Your task to perform on an android device: change the clock style Image 0: 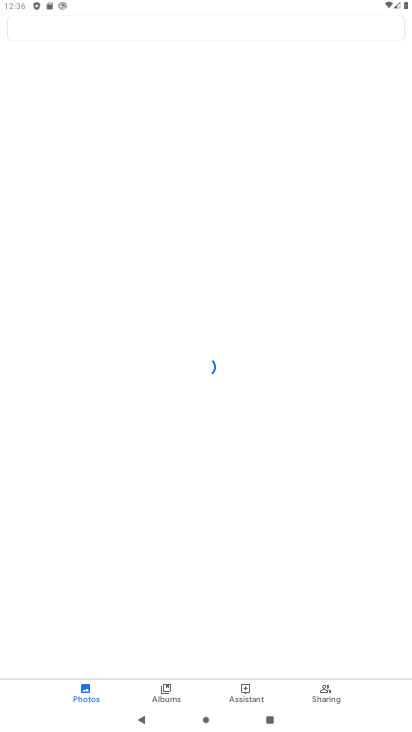
Step 0: press home button
Your task to perform on an android device: change the clock style Image 1: 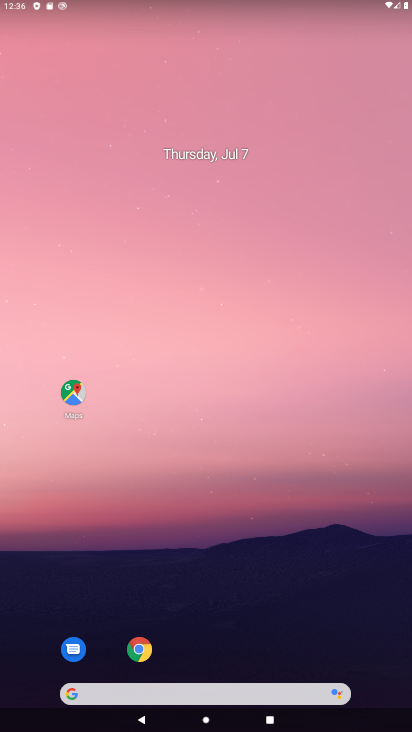
Step 1: drag from (198, 666) to (339, 17)
Your task to perform on an android device: change the clock style Image 2: 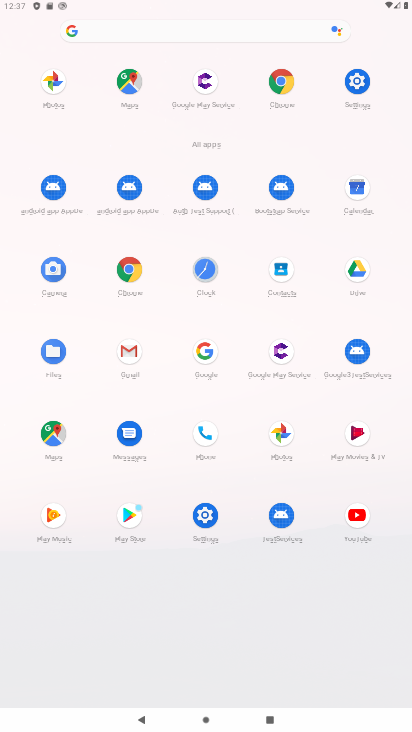
Step 2: click (206, 281)
Your task to perform on an android device: change the clock style Image 3: 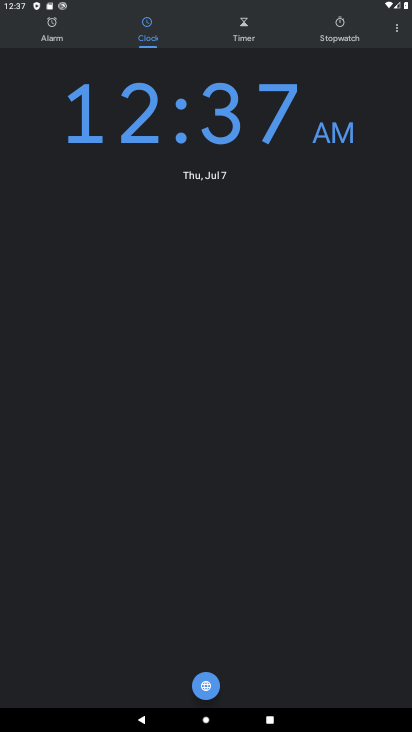
Step 3: click (397, 27)
Your task to perform on an android device: change the clock style Image 4: 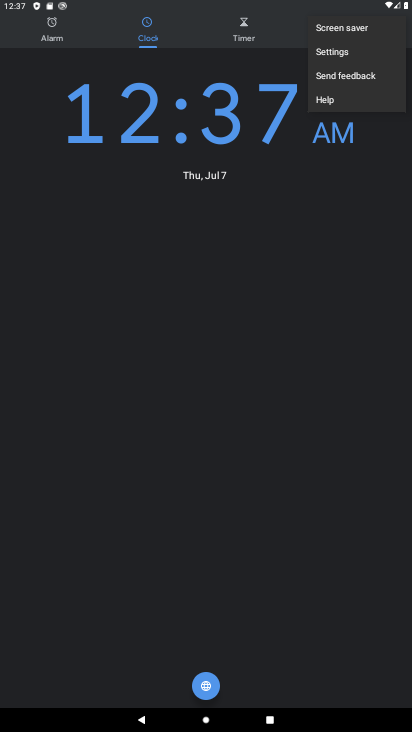
Step 4: click (317, 52)
Your task to perform on an android device: change the clock style Image 5: 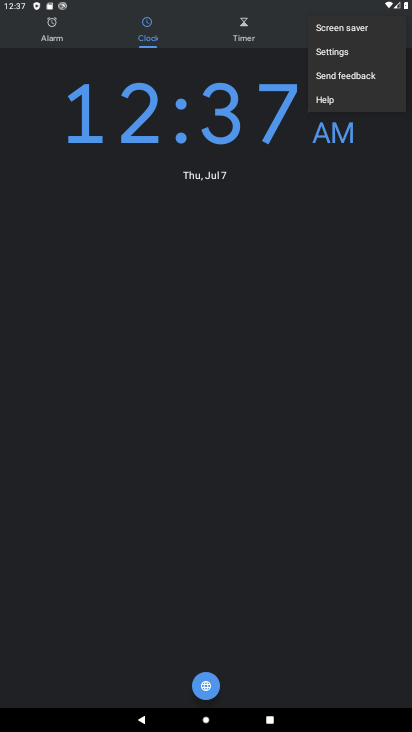
Step 5: click (317, 52)
Your task to perform on an android device: change the clock style Image 6: 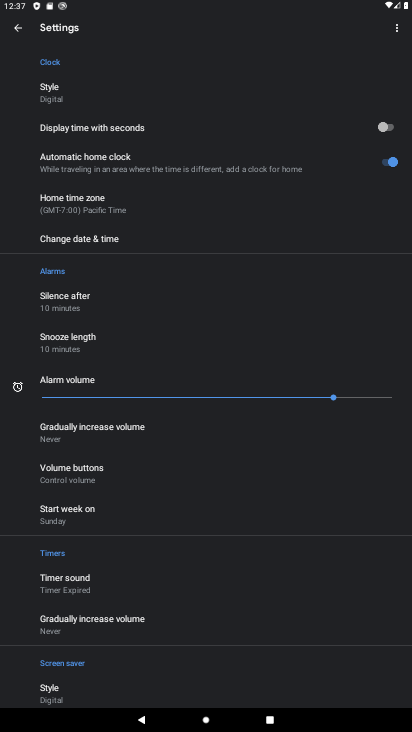
Step 6: click (65, 92)
Your task to perform on an android device: change the clock style Image 7: 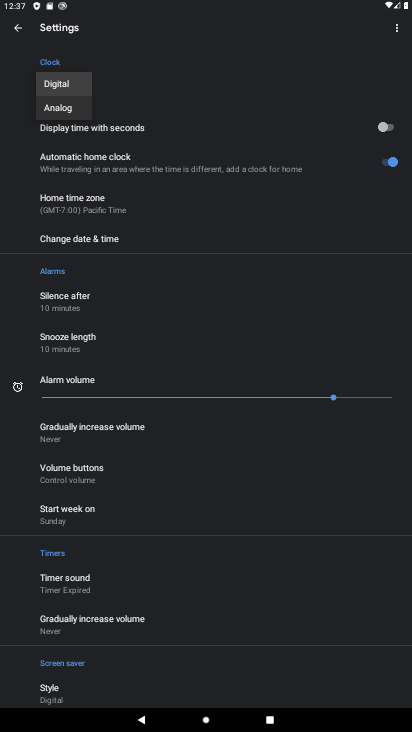
Step 7: click (62, 111)
Your task to perform on an android device: change the clock style Image 8: 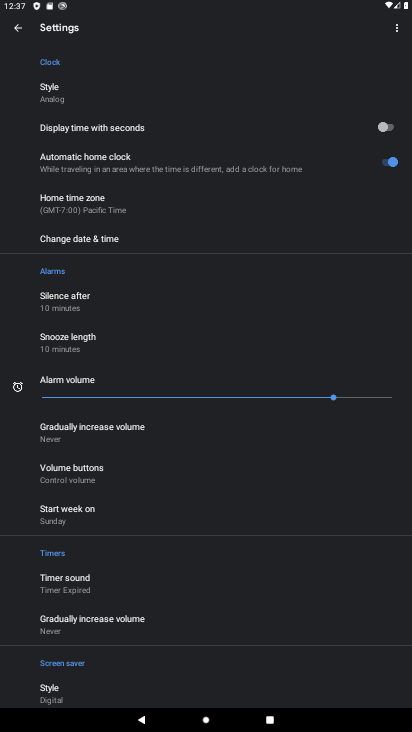
Step 8: task complete